Your task to perform on an android device: turn on translation in the chrome app Image 0: 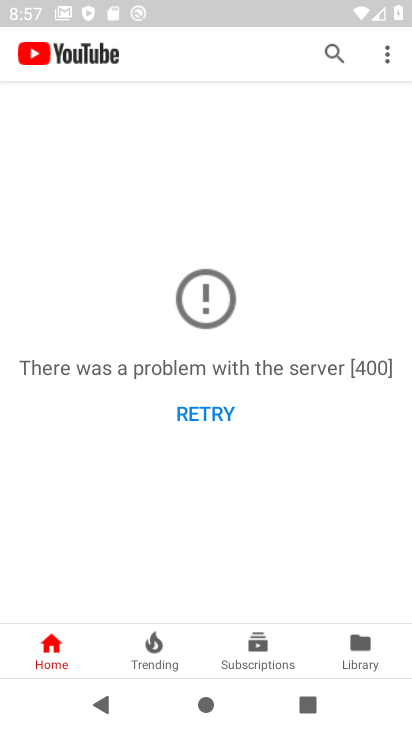
Step 0: press home button
Your task to perform on an android device: turn on translation in the chrome app Image 1: 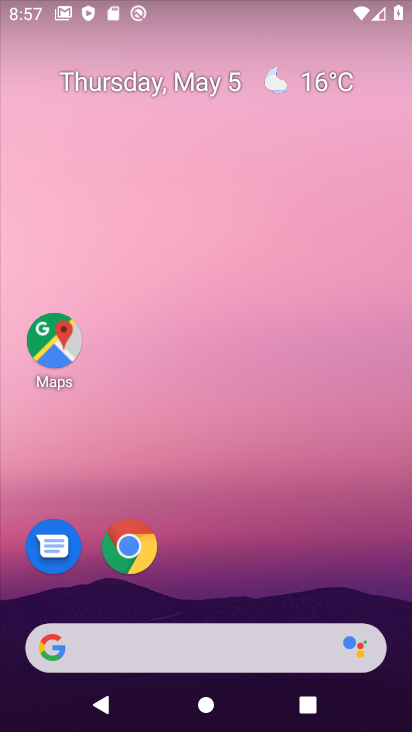
Step 1: click (131, 563)
Your task to perform on an android device: turn on translation in the chrome app Image 2: 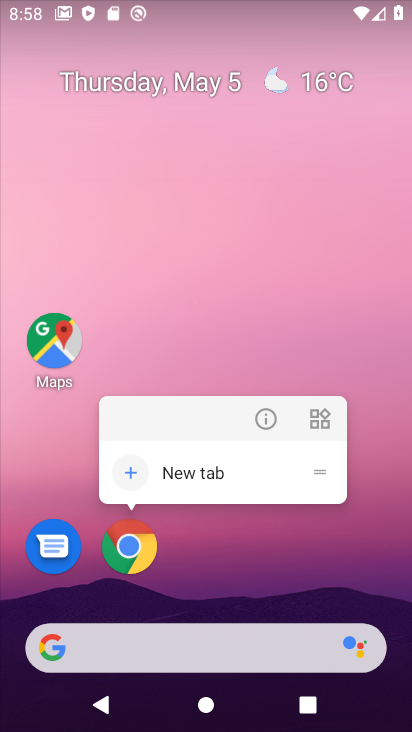
Step 2: click (131, 564)
Your task to perform on an android device: turn on translation in the chrome app Image 3: 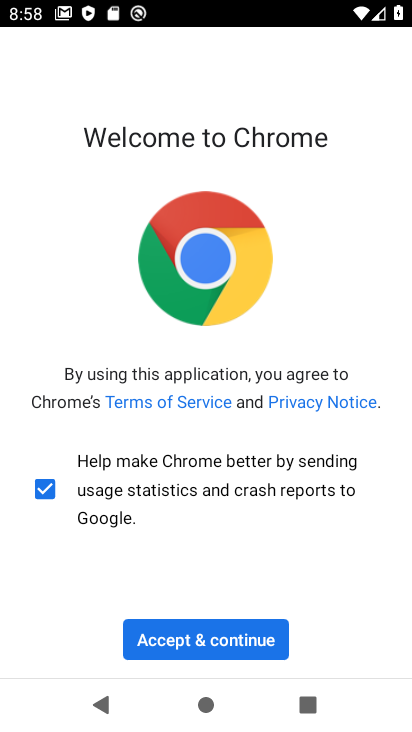
Step 3: click (197, 616)
Your task to perform on an android device: turn on translation in the chrome app Image 4: 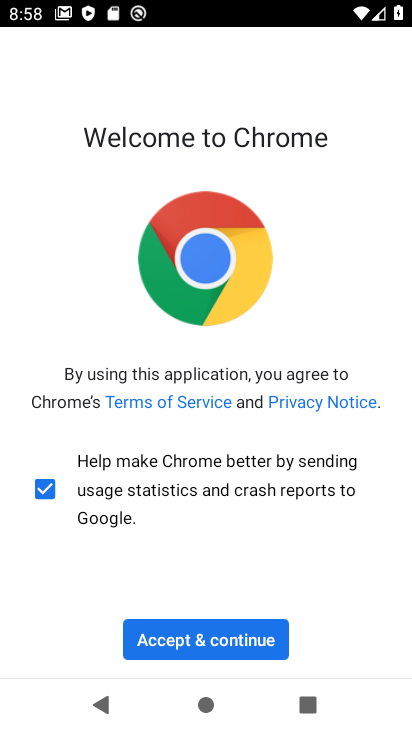
Step 4: click (192, 637)
Your task to perform on an android device: turn on translation in the chrome app Image 5: 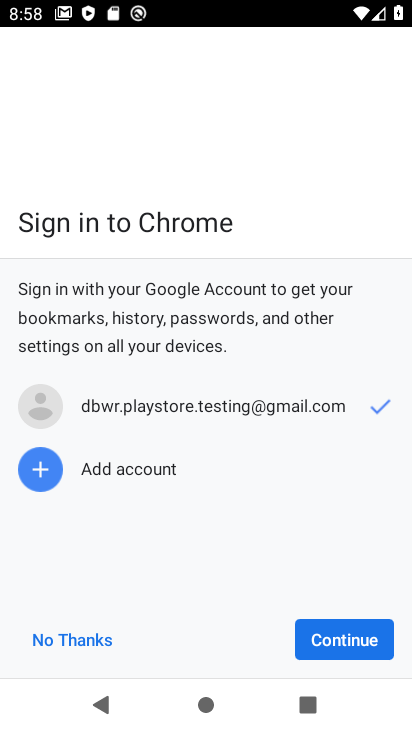
Step 5: click (333, 637)
Your task to perform on an android device: turn on translation in the chrome app Image 6: 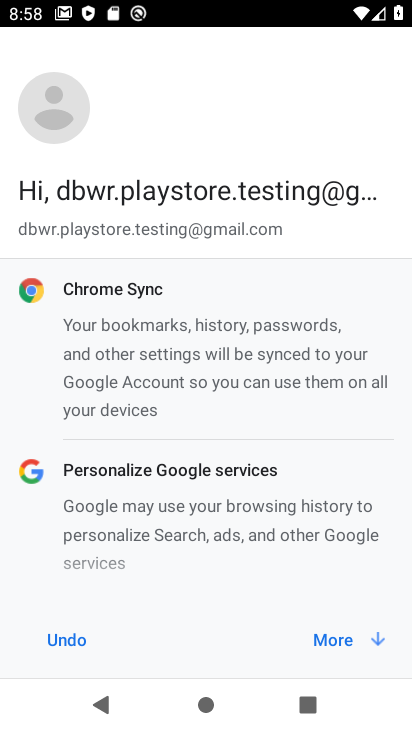
Step 6: click (334, 632)
Your task to perform on an android device: turn on translation in the chrome app Image 7: 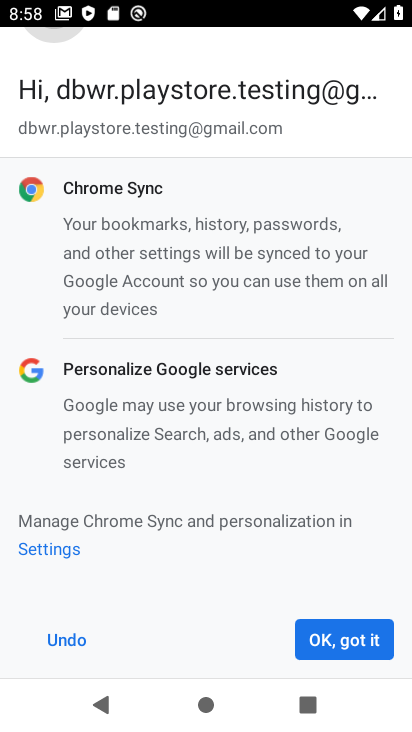
Step 7: click (330, 629)
Your task to perform on an android device: turn on translation in the chrome app Image 8: 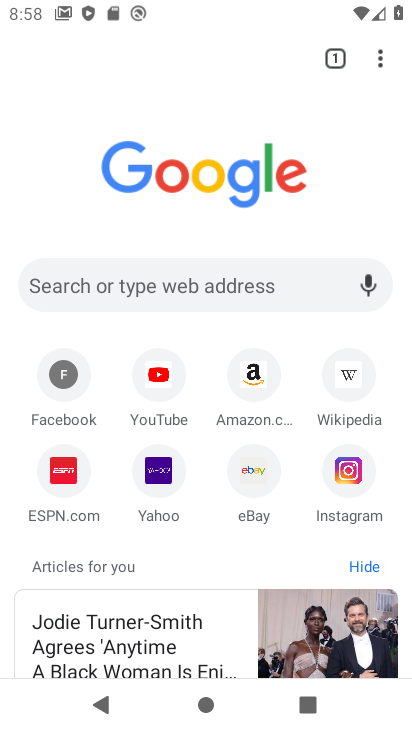
Step 8: click (375, 65)
Your task to perform on an android device: turn on translation in the chrome app Image 9: 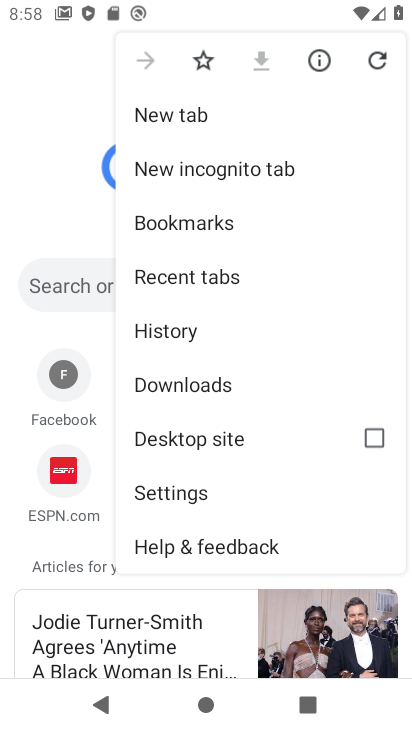
Step 9: click (163, 496)
Your task to perform on an android device: turn on translation in the chrome app Image 10: 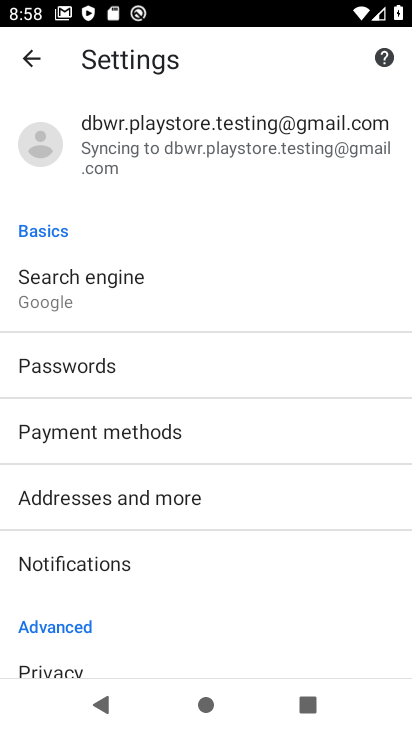
Step 10: drag from (106, 591) to (106, 335)
Your task to perform on an android device: turn on translation in the chrome app Image 11: 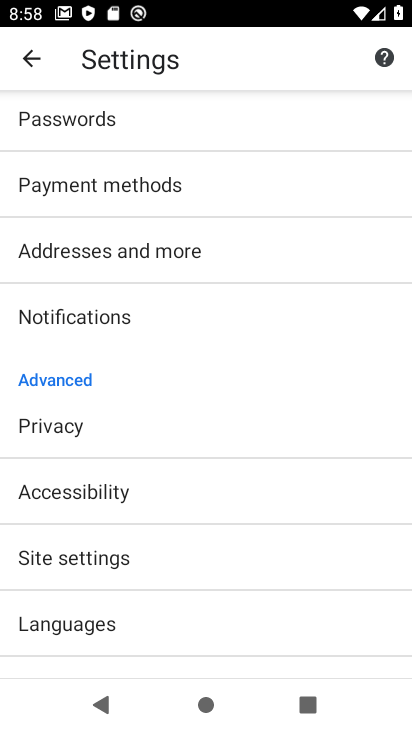
Step 11: drag from (90, 584) to (98, 354)
Your task to perform on an android device: turn on translation in the chrome app Image 12: 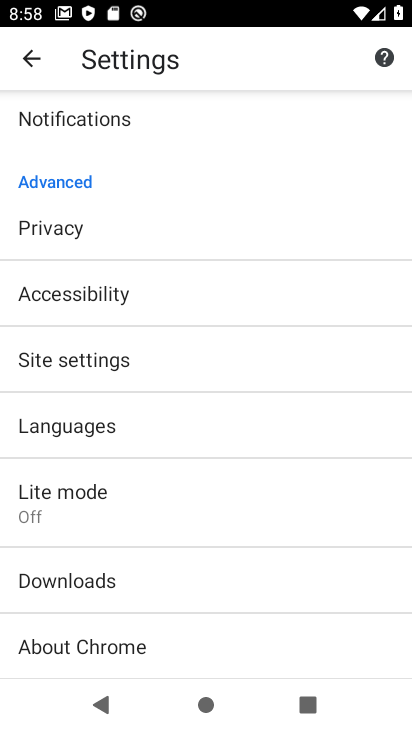
Step 12: click (109, 428)
Your task to perform on an android device: turn on translation in the chrome app Image 13: 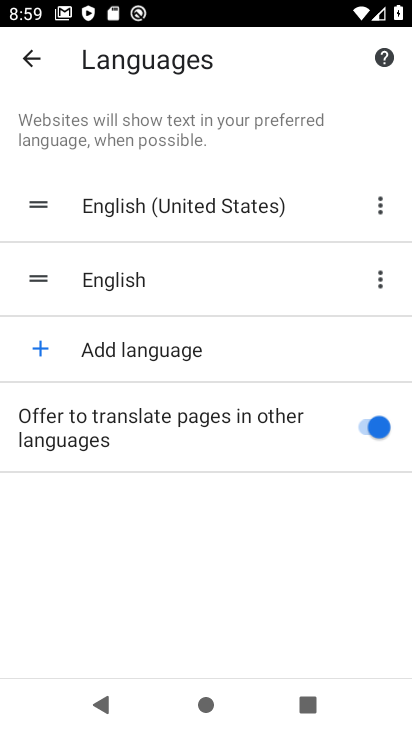
Step 13: task complete